Your task to perform on an android device: Open the stopwatch Image 0: 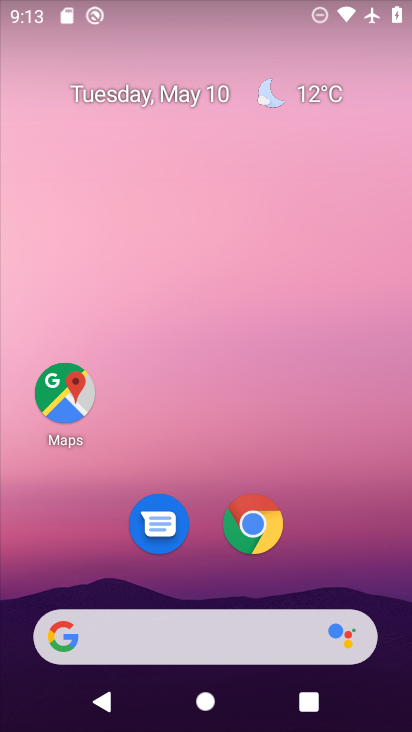
Step 0: drag from (324, 463) to (283, 63)
Your task to perform on an android device: Open the stopwatch Image 1: 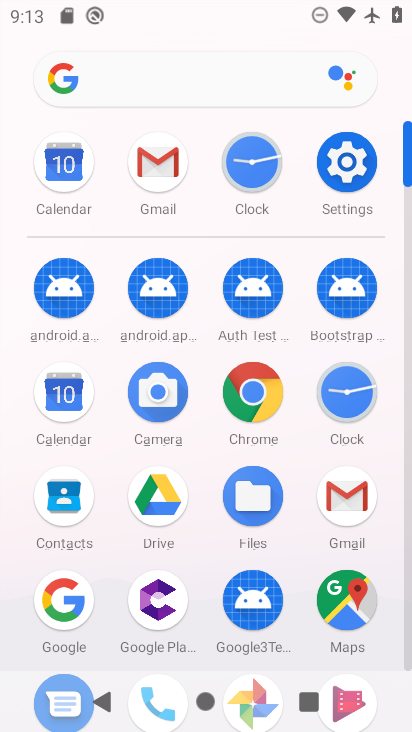
Step 1: click (260, 172)
Your task to perform on an android device: Open the stopwatch Image 2: 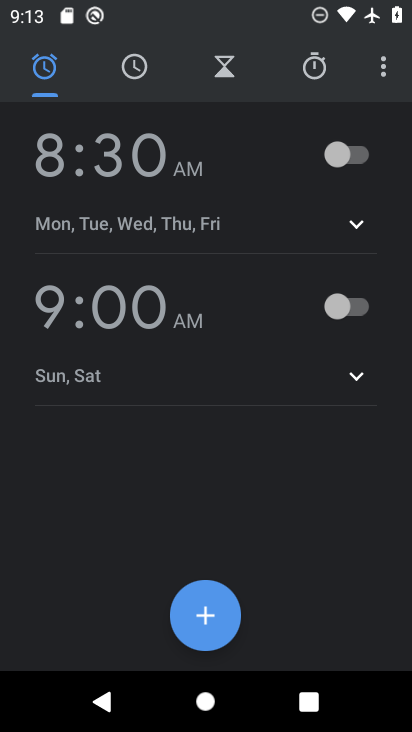
Step 2: click (309, 67)
Your task to perform on an android device: Open the stopwatch Image 3: 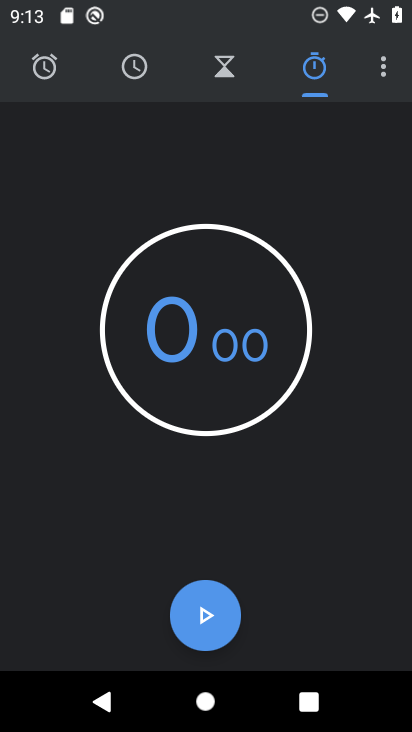
Step 3: task complete